Your task to perform on an android device: Do I have any events this weekend? Image 0: 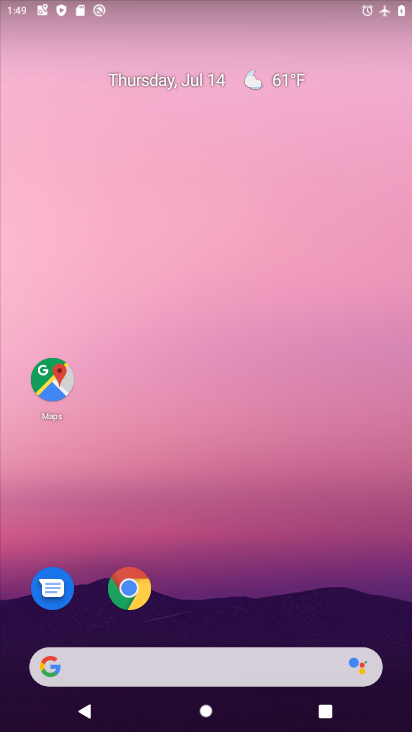
Step 0: drag from (227, 609) to (233, 243)
Your task to perform on an android device: Do I have any events this weekend? Image 1: 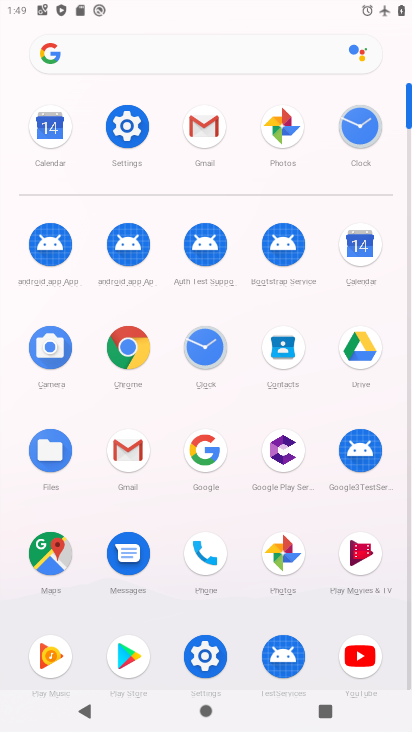
Step 1: click (362, 243)
Your task to perform on an android device: Do I have any events this weekend? Image 2: 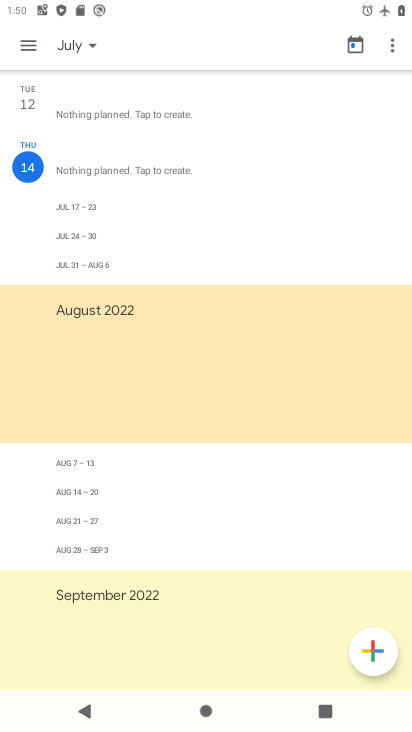
Step 2: click (29, 48)
Your task to perform on an android device: Do I have any events this weekend? Image 3: 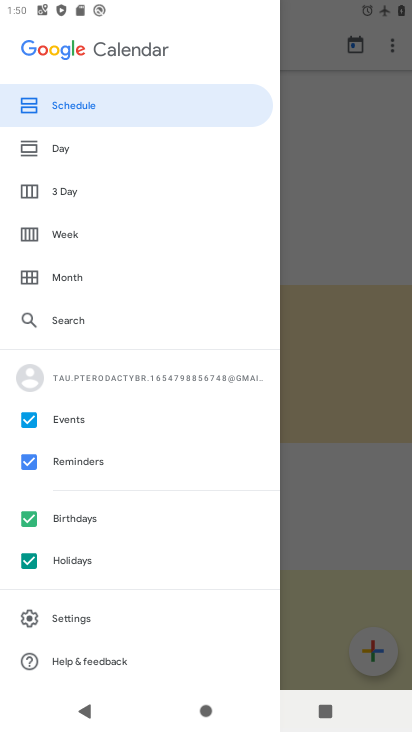
Step 3: click (64, 247)
Your task to perform on an android device: Do I have any events this weekend? Image 4: 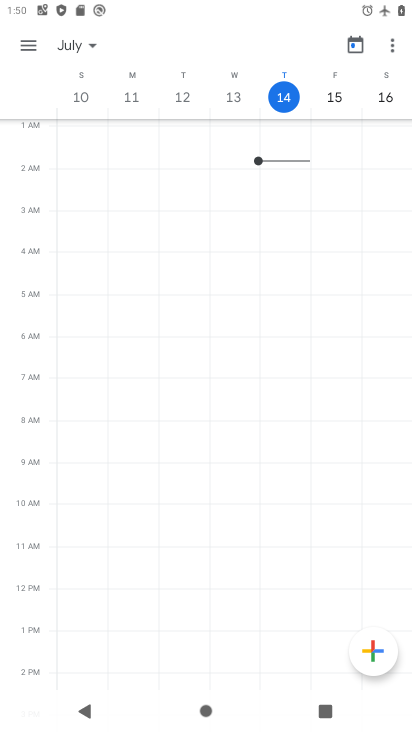
Step 4: task complete